Your task to perform on an android device: show emergency info Image 0: 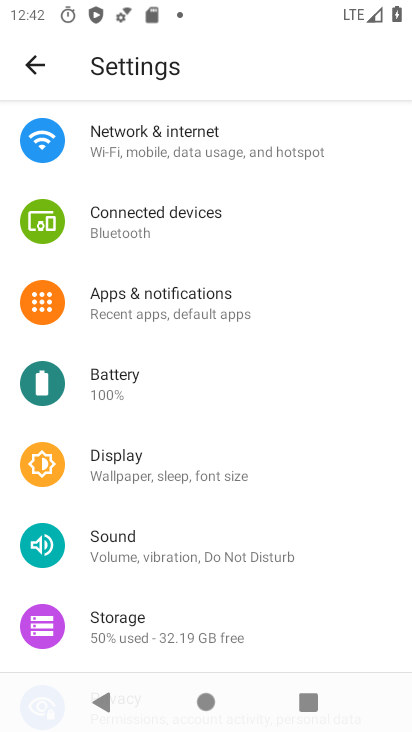
Step 0: drag from (121, 252) to (92, 587)
Your task to perform on an android device: show emergency info Image 1: 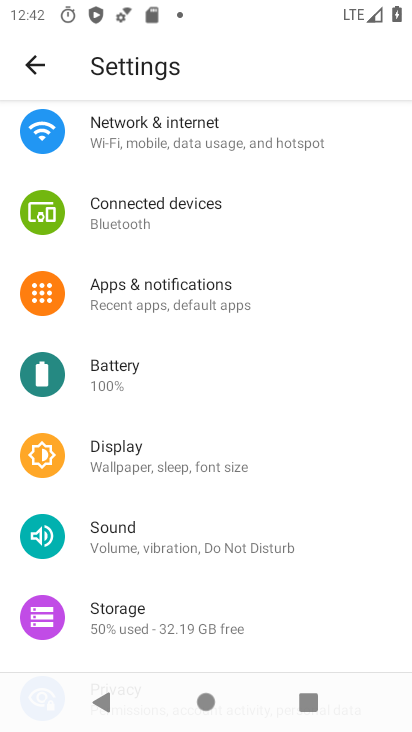
Step 1: click (32, 54)
Your task to perform on an android device: show emergency info Image 2: 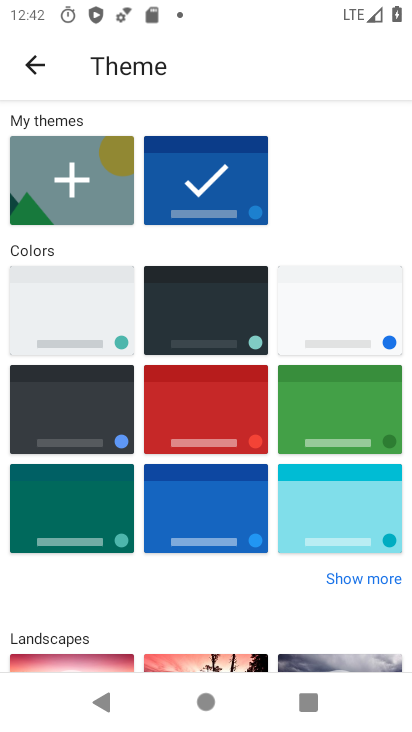
Step 2: press back button
Your task to perform on an android device: show emergency info Image 3: 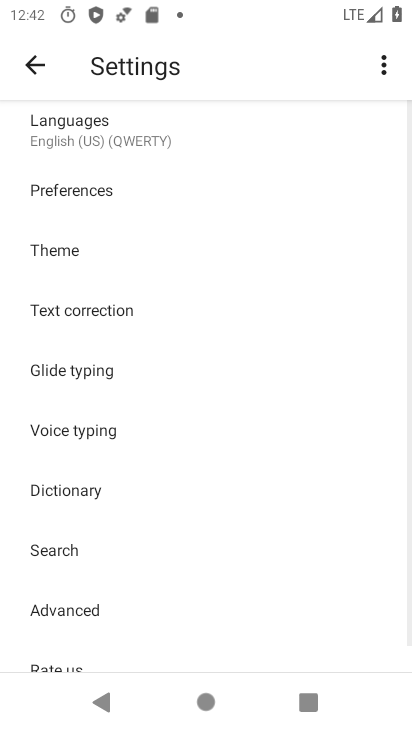
Step 3: press back button
Your task to perform on an android device: show emergency info Image 4: 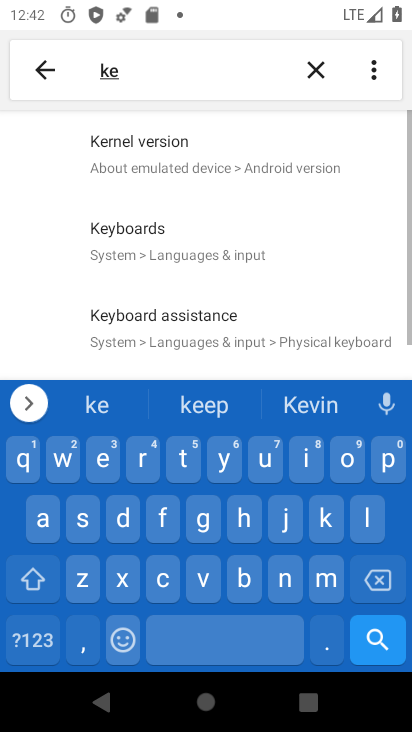
Step 4: press home button
Your task to perform on an android device: show emergency info Image 5: 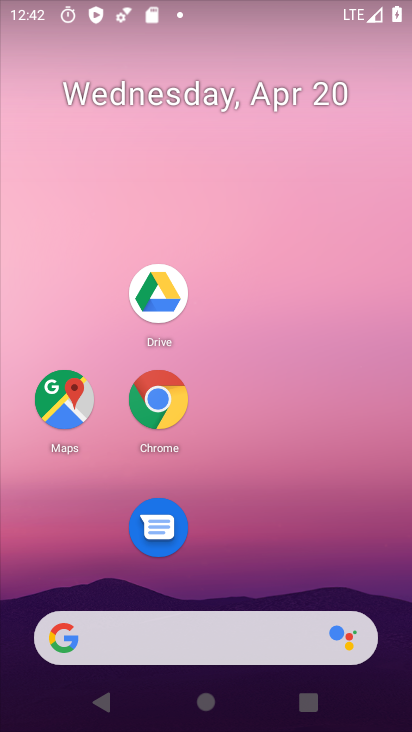
Step 5: drag from (277, 648) to (219, 272)
Your task to perform on an android device: show emergency info Image 6: 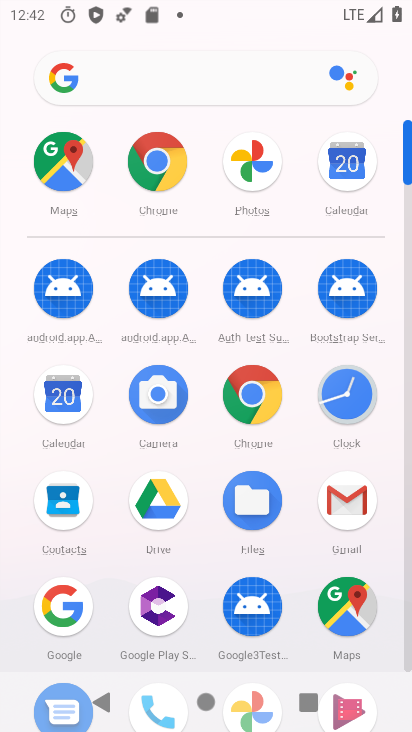
Step 6: drag from (213, 525) to (301, 315)
Your task to perform on an android device: show emergency info Image 7: 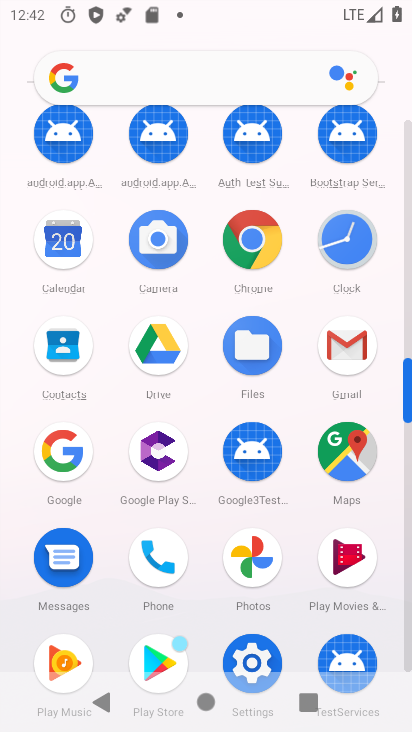
Step 7: click (262, 649)
Your task to perform on an android device: show emergency info Image 8: 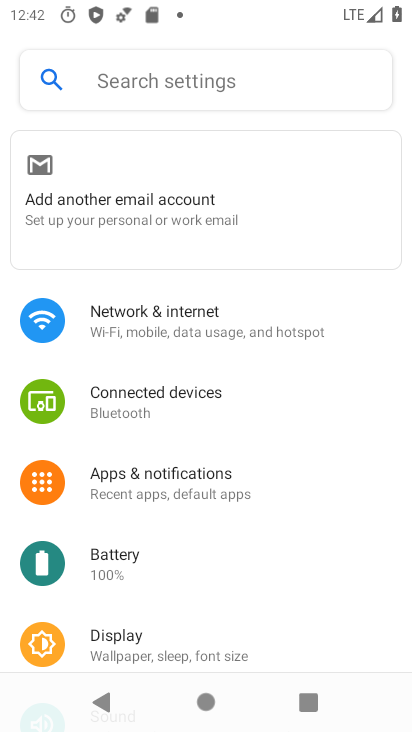
Step 8: click (124, 82)
Your task to perform on an android device: show emergency info Image 9: 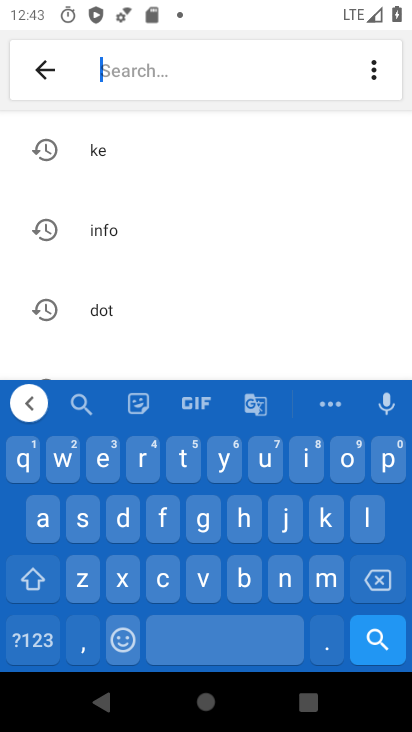
Step 9: click (101, 468)
Your task to perform on an android device: show emergency info Image 10: 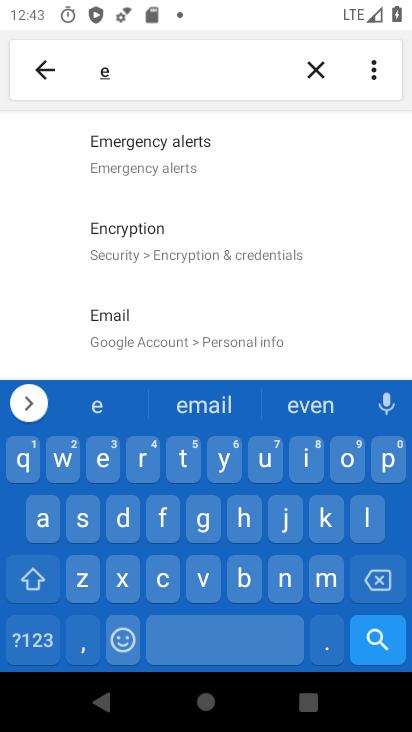
Step 10: click (332, 579)
Your task to perform on an android device: show emergency info Image 11: 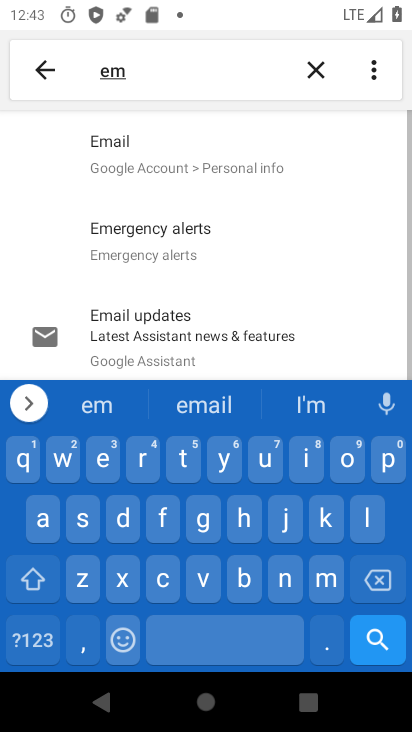
Step 11: click (103, 458)
Your task to perform on an android device: show emergency info Image 12: 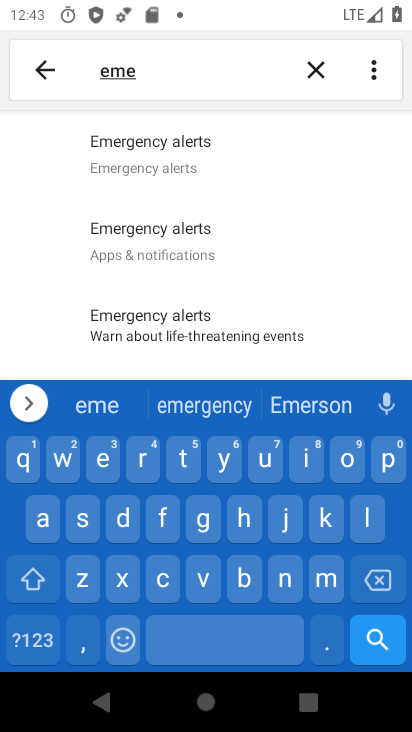
Step 12: drag from (198, 334) to (203, 237)
Your task to perform on an android device: show emergency info Image 13: 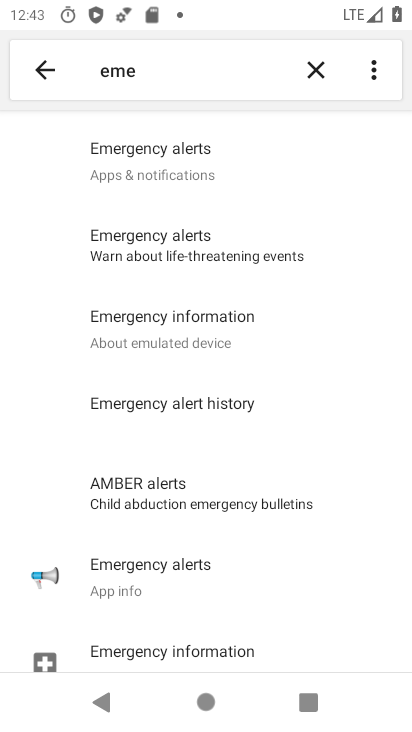
Step 13: drag from (175, 598) to (199, 488)
Your task to perform on an android device: show emergency info Image 14: 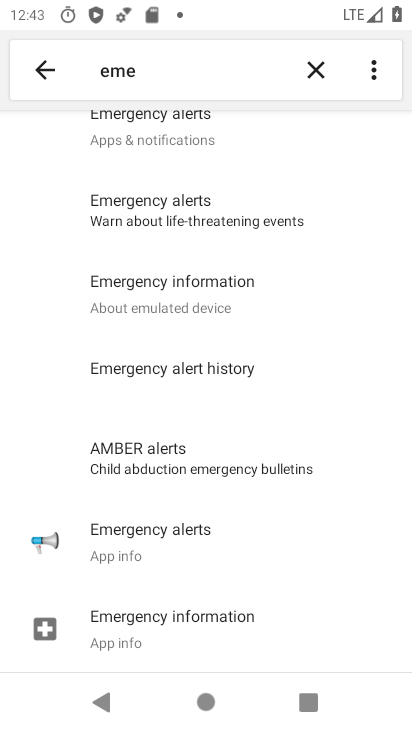
Step 14: click (165, 276)
Your task to perform on an android device: show emergency info Image 15: 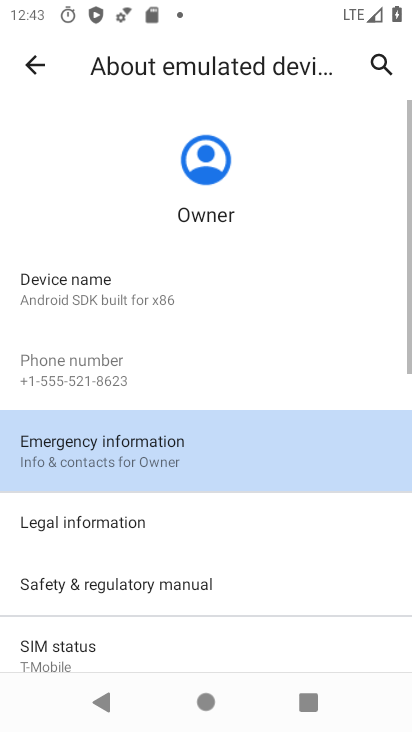
Step 15: click (147, 445)
Your task to perform on an android device: show emergency info Image 16: 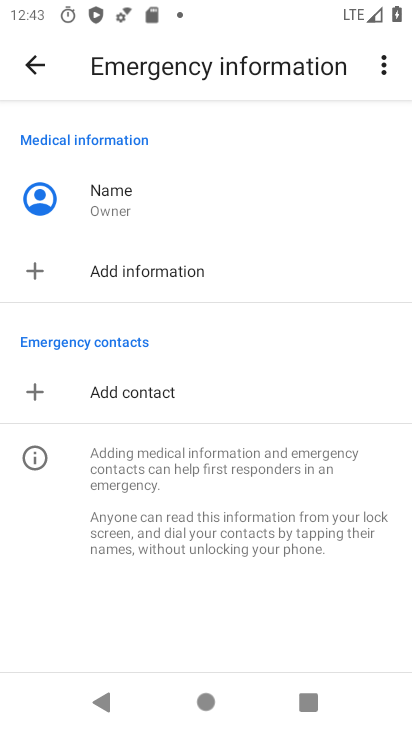
Step 16: task complete